Your task to perform on an android device: Go to Reddit.com Image 0: 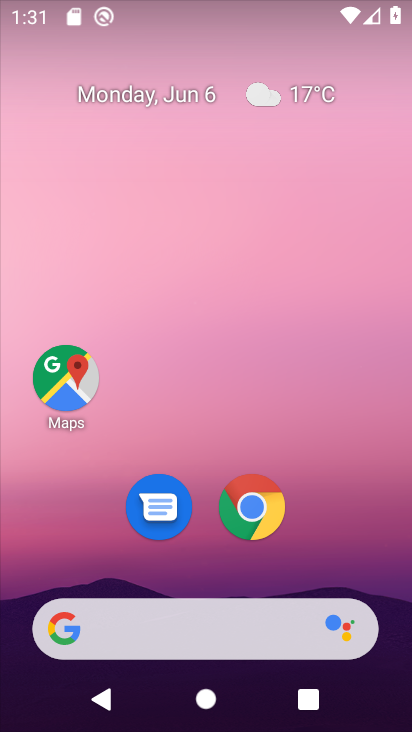
Step 0: click (238, 516)
Your task to perform on an android device: Go to Reddit.com Image 1: 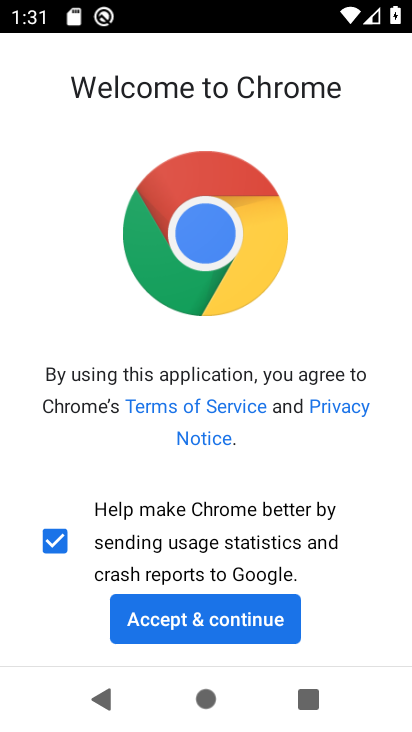
Step 1: click (228, 624)
Your task to perform on an android device: Go to Reddit.com Image 2: 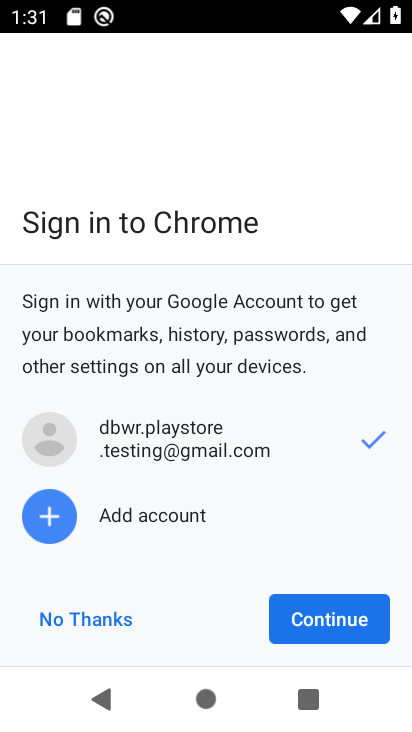
Step 2: click (308, 620)
Your task to perform on an android device: Go to Reddit.com Image 3: 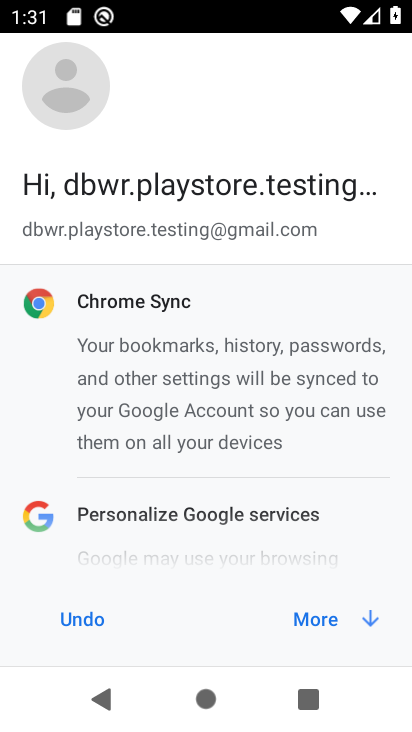
Step 3: click (308, 620)
Your task to perform on an android device: Go to Reddit.com Image 4: 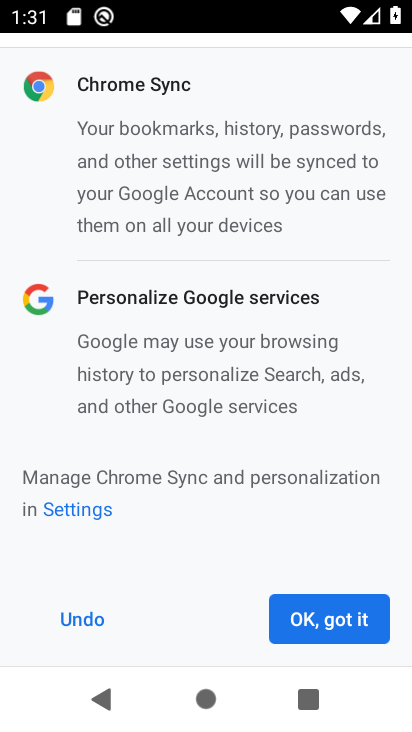
Step 4: click (308, 620)
Your task to perform on an android device: Go to Reddit.com Image 5: 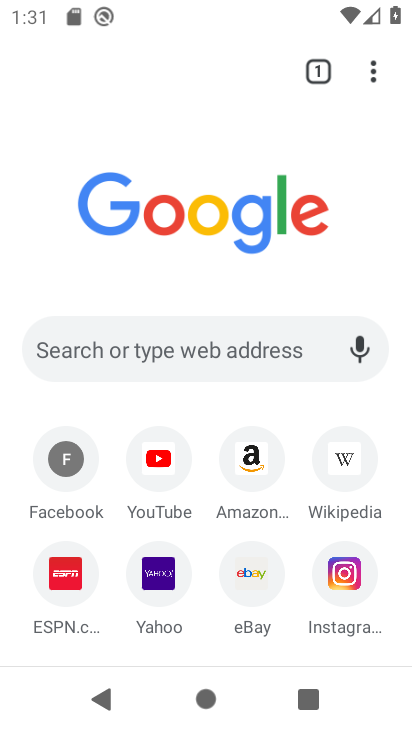
Step 5: click (180, 355)
Your task to perform on an android device: Go to Reddit.com Image 6: 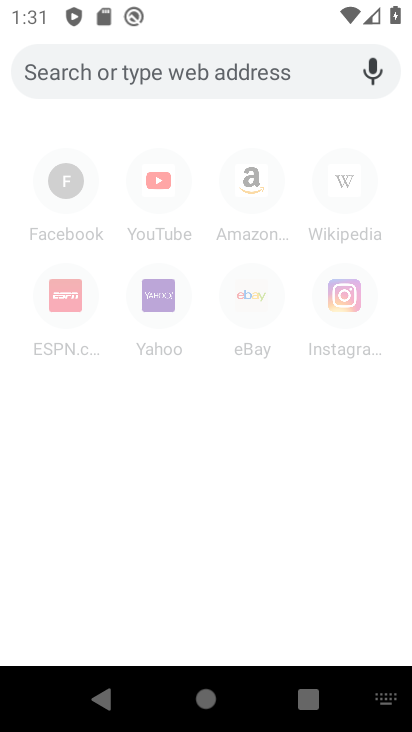
Step 6: type "reddit.com"
Your task to perform on an android device: Go to Reddit.com Image 7: 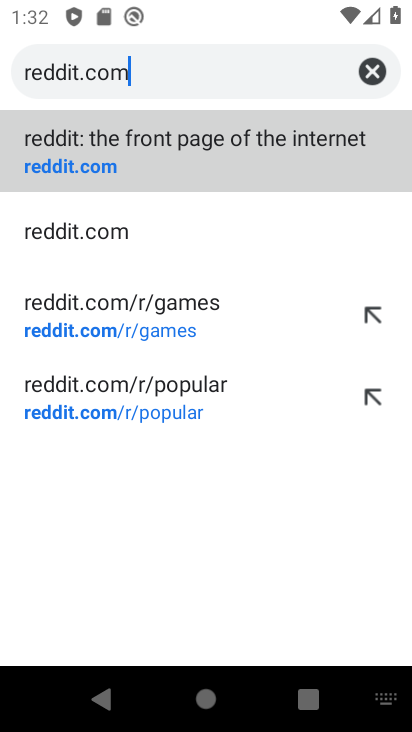
Step 7: click (66, 170)
Your task to perform on an android device: Go to Reddit.com Image 8: 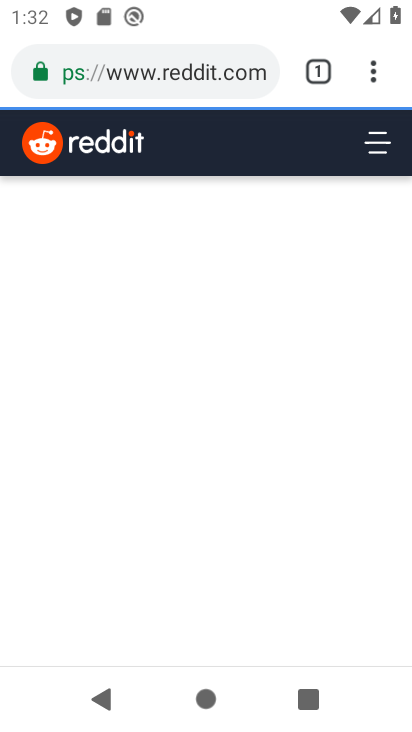
Step 8: task complete